Your task to perform on an android device: Open calendar and show me the first week of next month Image 0: 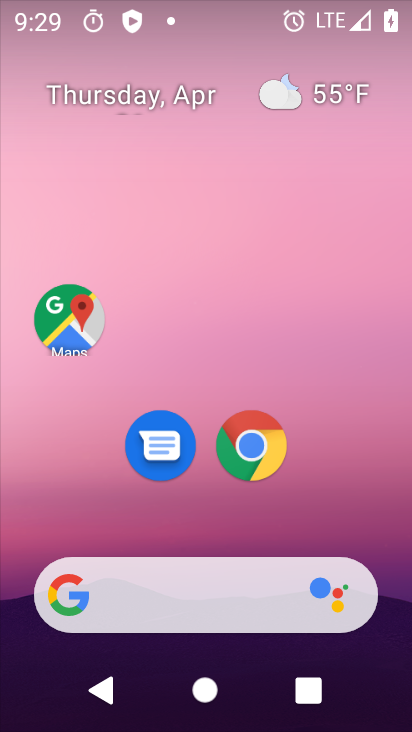
Step 0: drag from (382, 552) to (328, 3)
Your task to perform on an android device: Open calendar and show me the first week of next month Image 1: 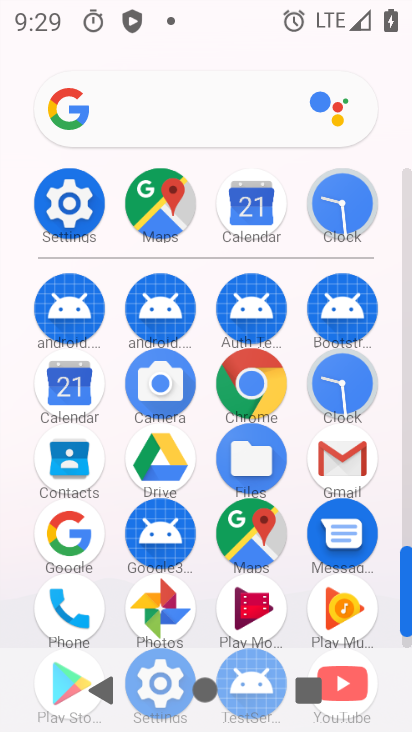
Step 1: click (68, 394)
Your task to perform on an android device: Open calendar and show me the first week of next month Image 2: 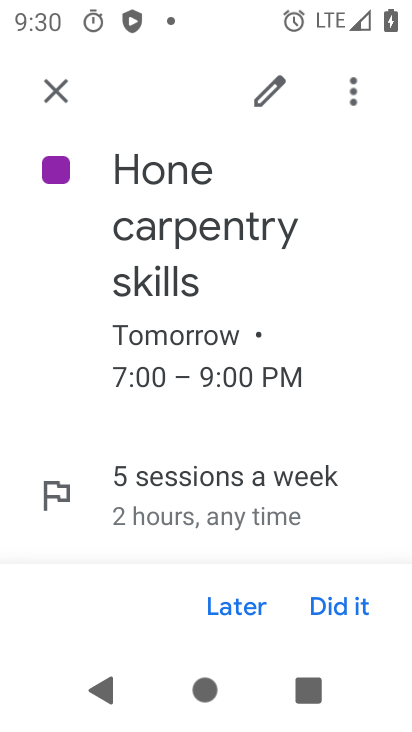
Step 2: click (44, 95)
Your task to perform on an android device: Open calendar and show me the first week of next month Image 3: 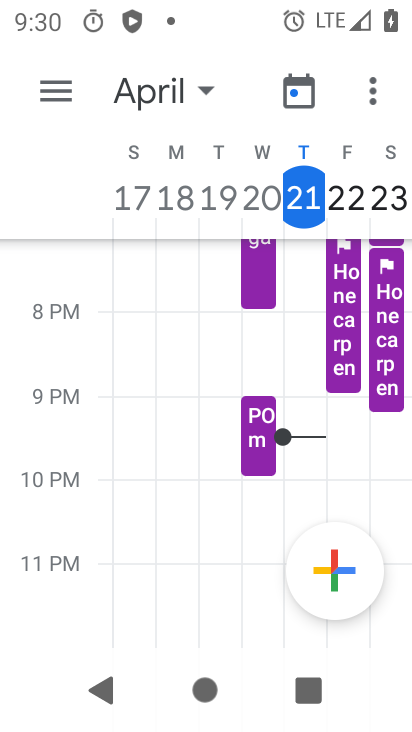
Step 3: click (210, 102)
Your task to perform on an android device: Open calendar and show me the first week of next month Image 4: 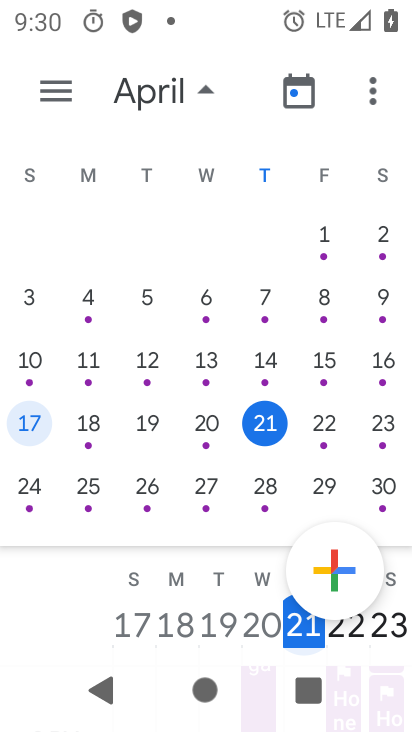
Step 4: task complete